Your task to perform on an android device: toggle airplane mode Image 0: 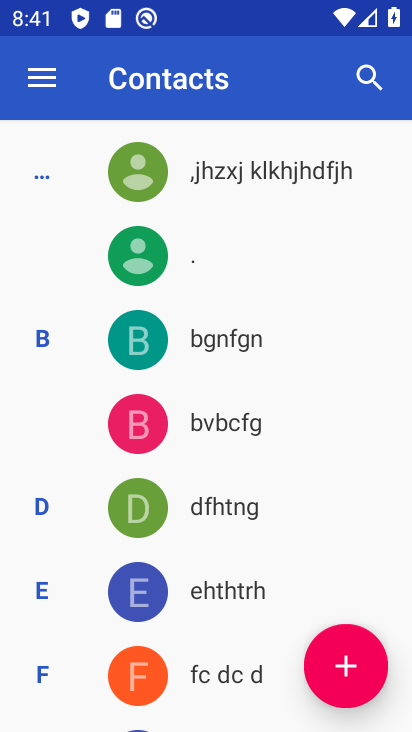
Step 0: press home button
Your task to perform on an android device: toggle airplane mode Image 1: 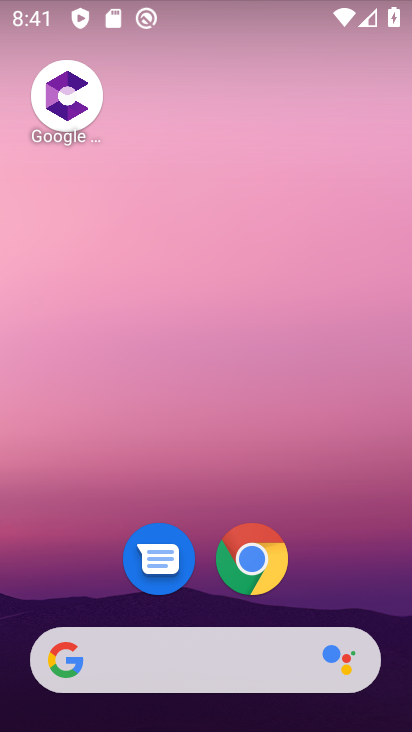
Step 1: drag from (208, 0) to (157, 572)
Your task to perform on an android device: toggle airplane mode Image 2: 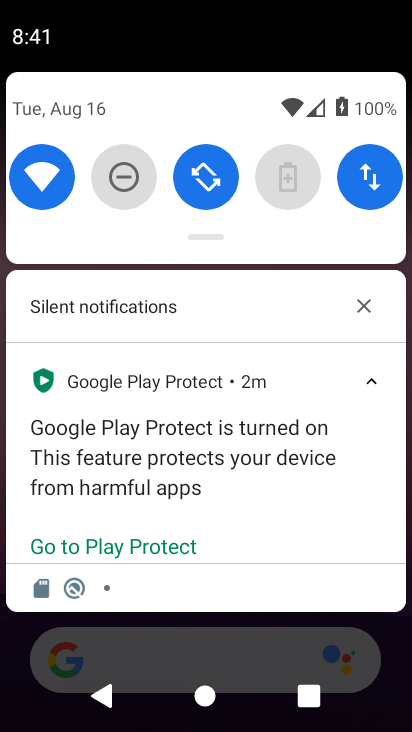
Step 2: drag from (234, 211) to (178, 725)
Your task to perform on an android device: toggle airplane mode Image 3: 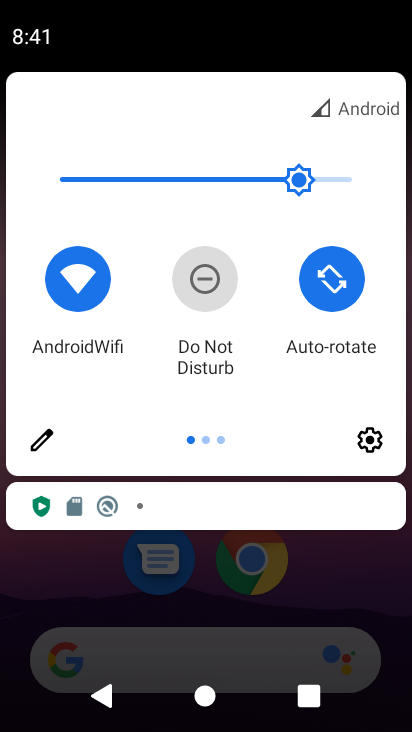
Step 3: drag from (327, 214) to (14, 179)
Your task to perform on an android device: toggle airplane mode Image 4: 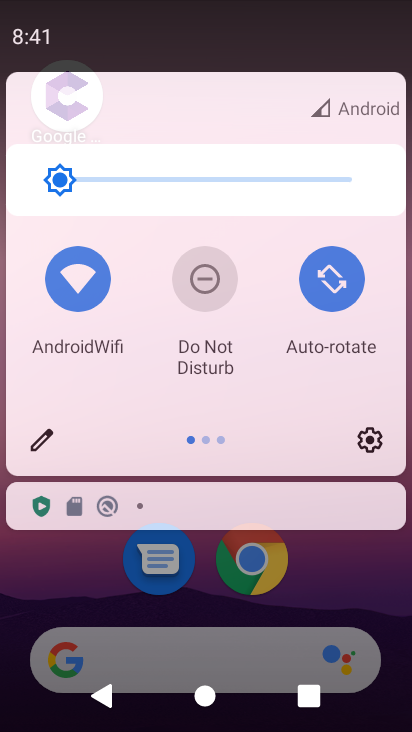
Step 4: drag from (82, 168) to (310, 177)
Your task to perform on an android device: toggle airplane mode Image 5: 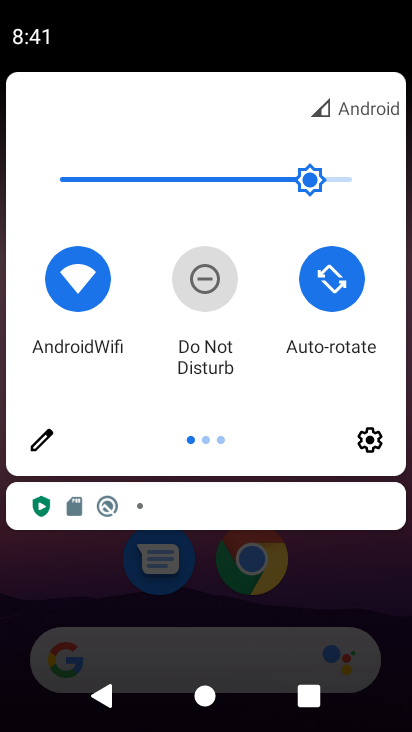
Step 5: click (293, 12)
Your task to perform on an android device: toggle airplane mode Image 6: 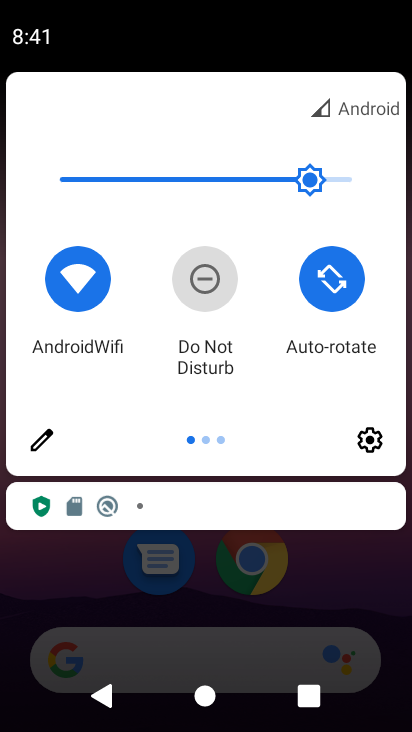
Step 6: drag from (383, 274) to (4, 221)
Your task to perform on an android device: toggle airplane mode Image 7: 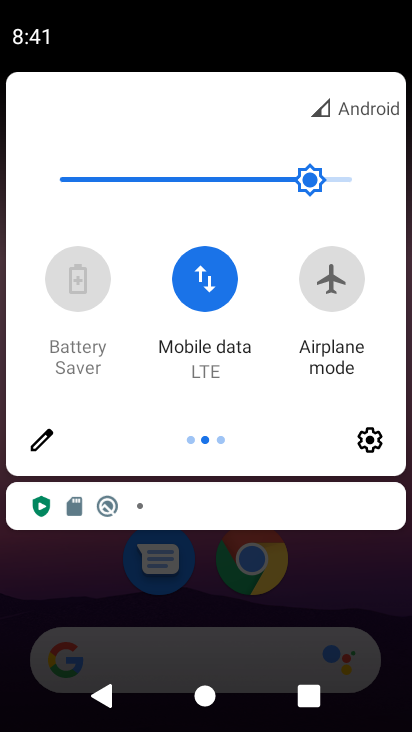
Step 7: click (331, 277)
Your task to perform on an android device: toggle airplane mode Image 8: 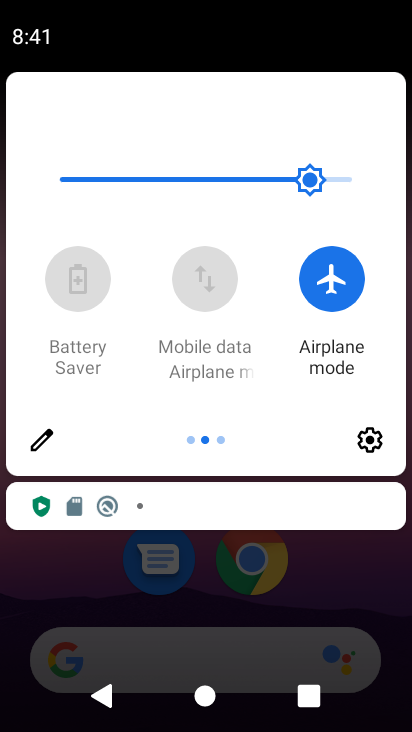
Step 8: task complete